Your task to perform on an android device: turn on notifications settings in the gmail app Image 0: 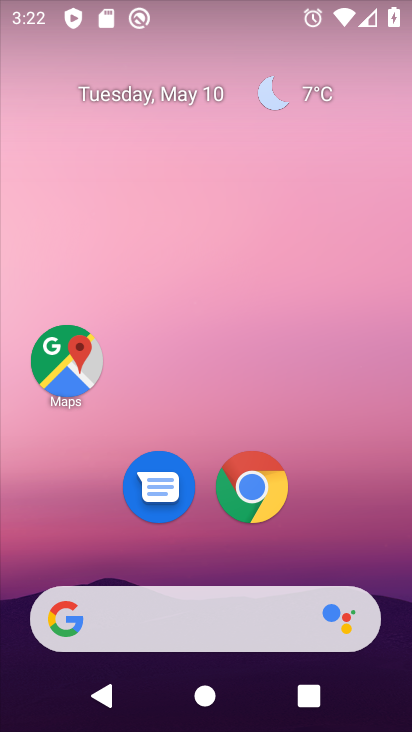
Step 0: drag from (334, 529) to (317, 154)
Your task to perform on an android device: turn on notifications settings in the gmail app Image 1: 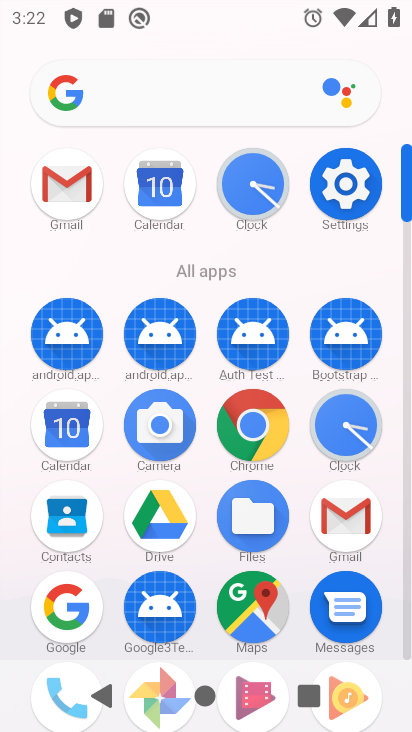
Step 1: click (62, 186)
Your task to perform on an android device: turn on notifications settings in the gmail app Image 2: 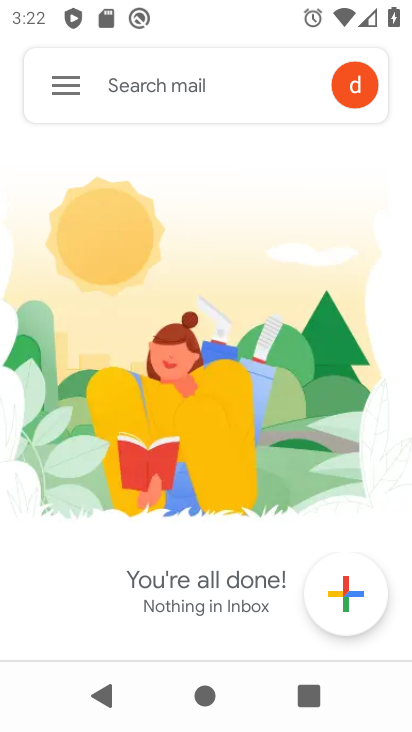
Step 2: click (60, 82)
Your task to perform on an android device: turn on notifications settings in the gmail app Image 3: 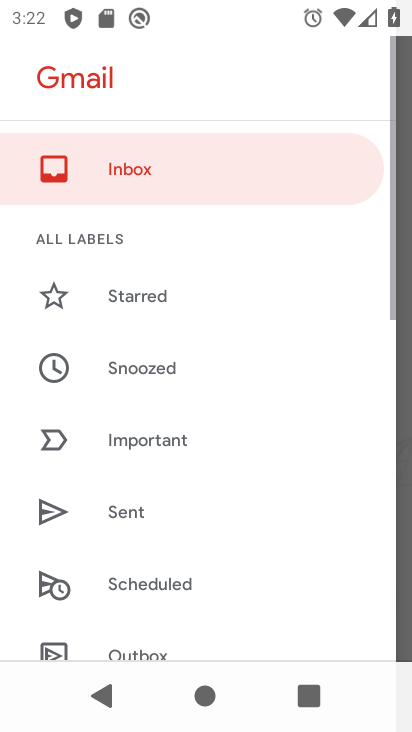
Step 3: drag from (217, 550) to (277, 109)
Your task to perform on an android device: turn on notifications settings in the gmail app Image 4: 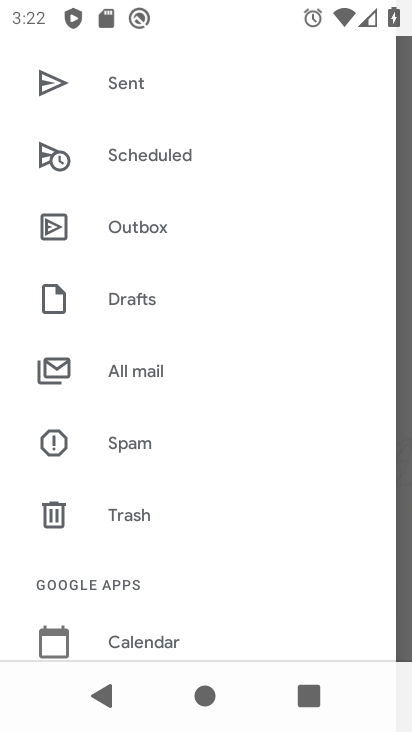
Step 4: drag from (202, 328) to (257, 137)
Your task to perform on an android device: turn on notifications settings in the gmail app Image 5: 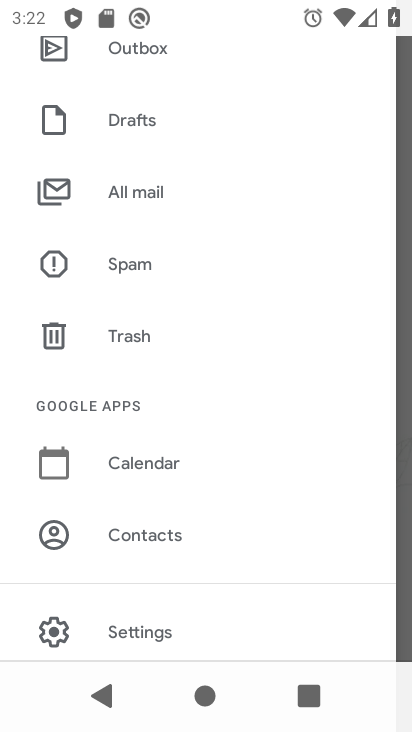
Step 5: drag from (215, 483) to (288, 148)
Your task to perform on an android device: turn on notifications settings in the gmail app Image 6: 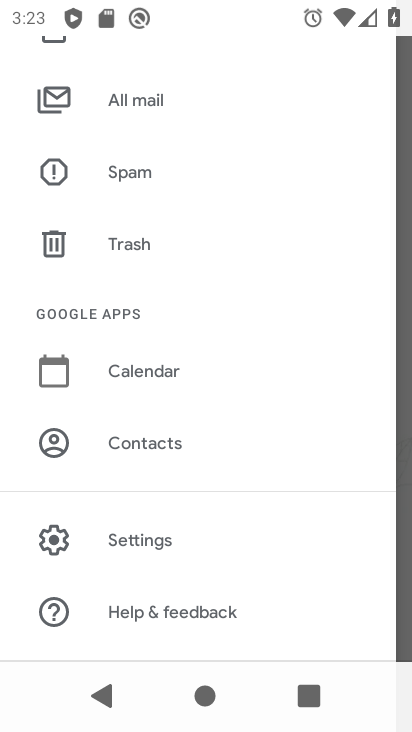
Step 6: click (149, 550)
Your task to perform on an android device: turn on notifications settings in the gmail app Image 7: 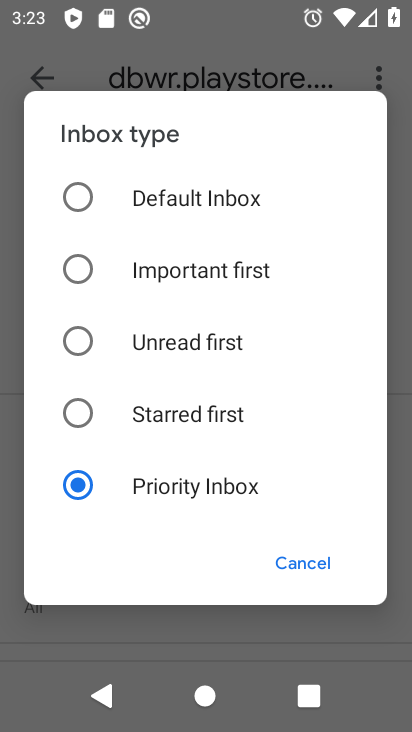
Step 7: click (324, 558)
Your task to perform on an android device: turn on notifications settings in the gmail app Image 8: 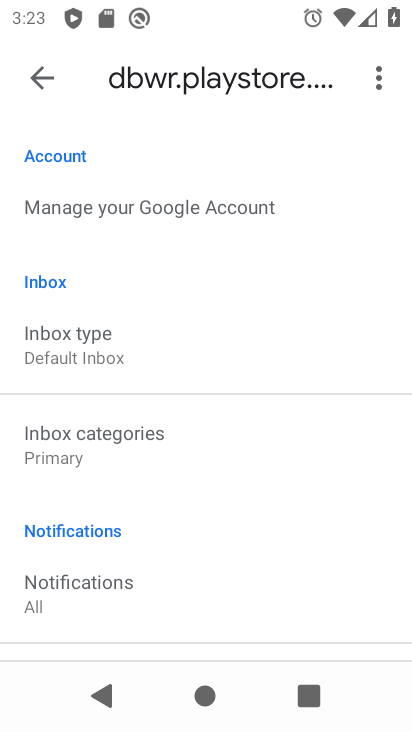
Step 8: drag from (227, 534) to (244, 184)
Your task to perform on an android device: turn on notifications settings in the gmail app Image 9: 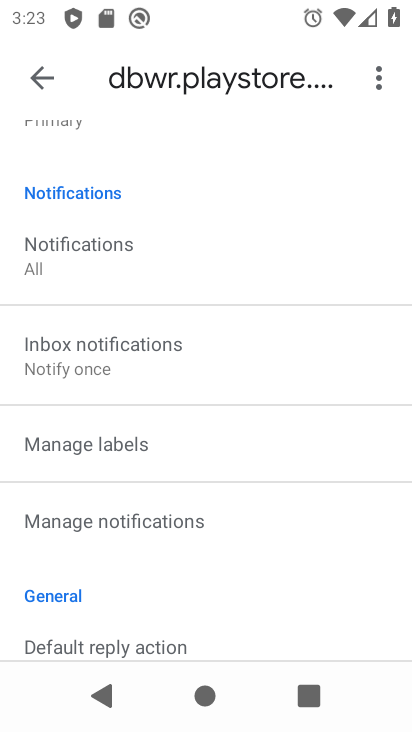
Step 9: click (126, 521)
Your task to perform on an android device: turn on notifications settings in the gmail app Image 10: 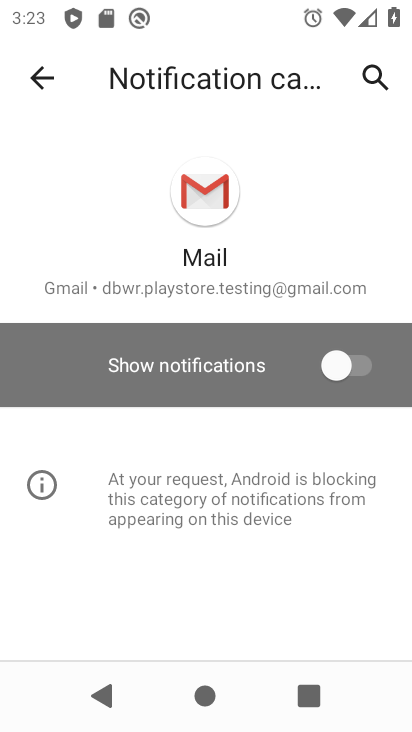
Step 10: click (358, 366)
Your task to perform on an android device: turn on notifications settings in the gmail app Image 11: 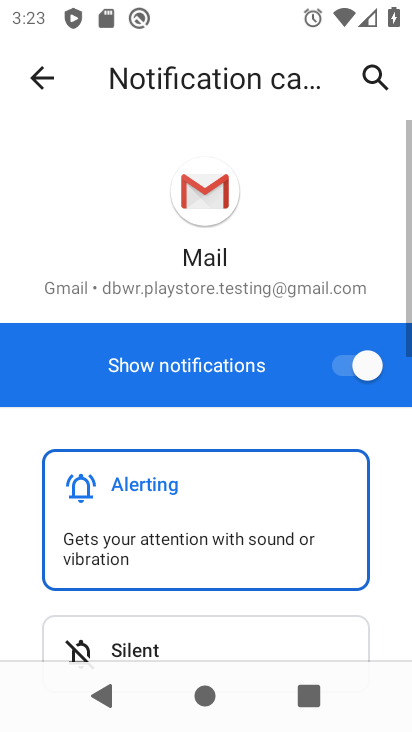
Step 11: task complete